Your task to perform on an android device: snooze an email in the gmail app Image 0: 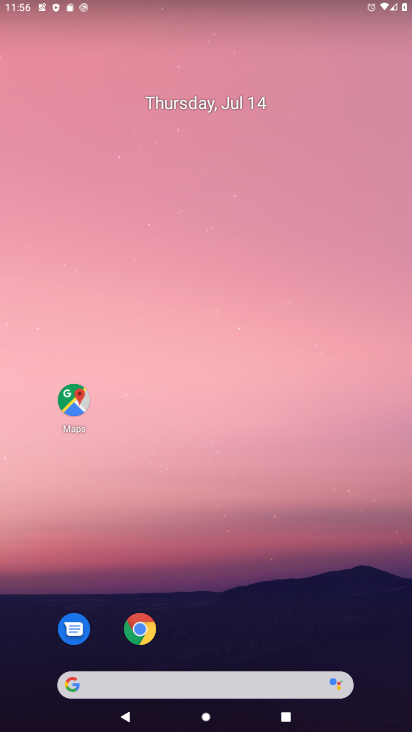
Step 0: press home button
Your task to perform on an android device: snooze an email in the gmail app Image 1: 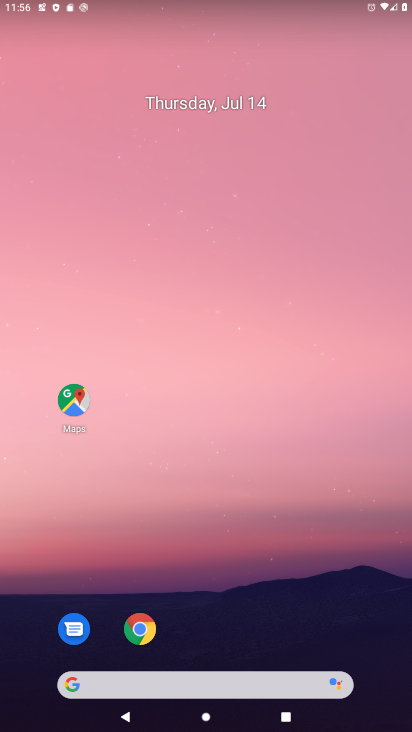
Step 1: drag from (238, 611) to (217, 53)
Your task to perform on an android device: snooze an email in the gmail app Image 2: 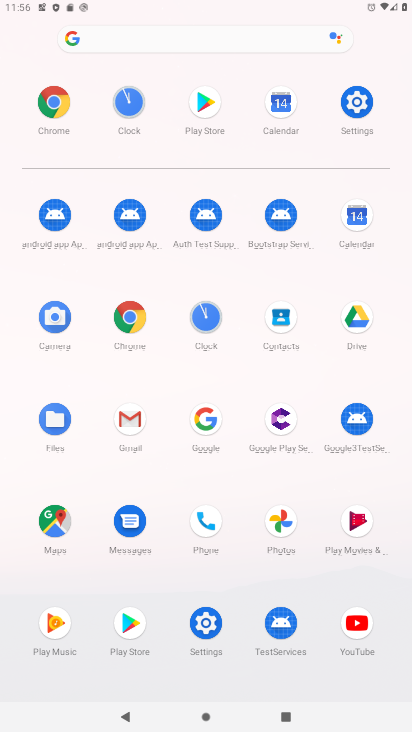
Step 2: click (132, 418)
Your task to perform on an android device: snooze an email in the gmail app Image 3: 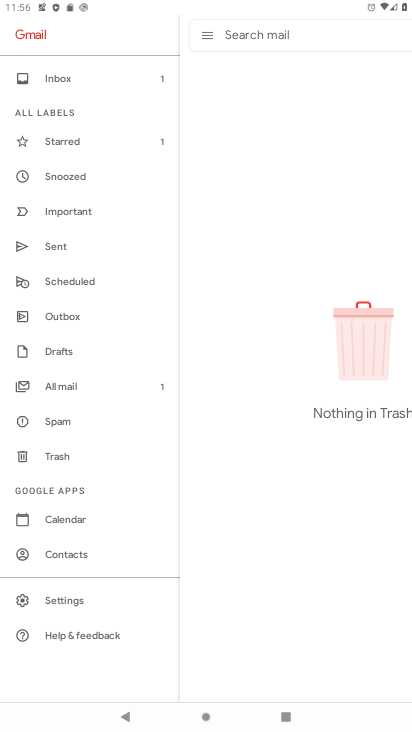
Step 3: click (49, 384)
Your task to perform on an android device: snooze an email in the gmail app Image 4: 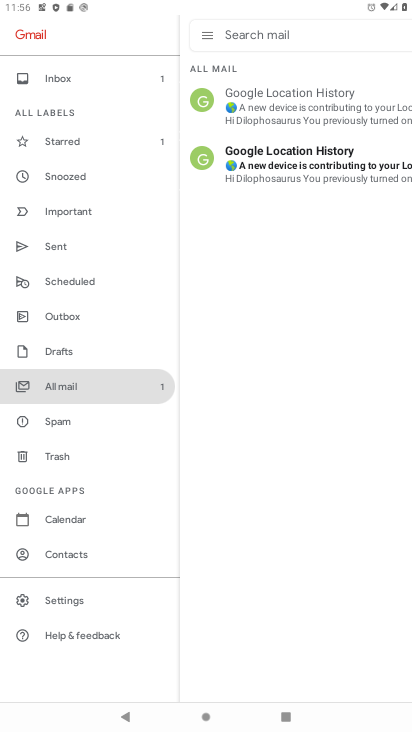
Step 4: click (295, 109)
Your task to perform on an android device: snooze an email in the gmail app Image 5: 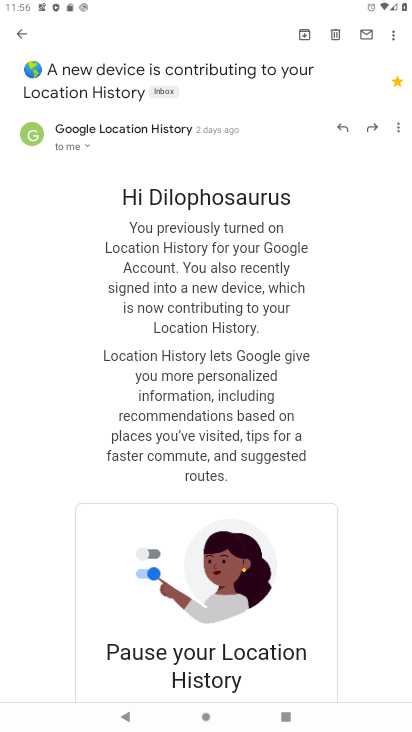
Step 5: click (395, 124)
Your task to perform on an android device: snooze an email in the gmail app Image 6: 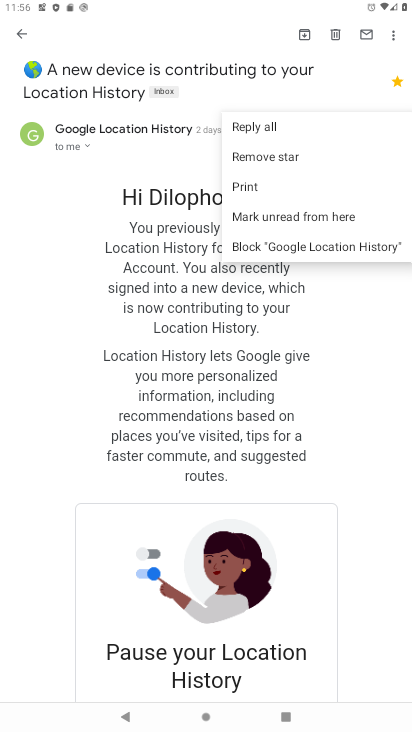
Step 6: click (352, 328)
Your task to perform on an android device: snooze an email in the gmail app Image 7: 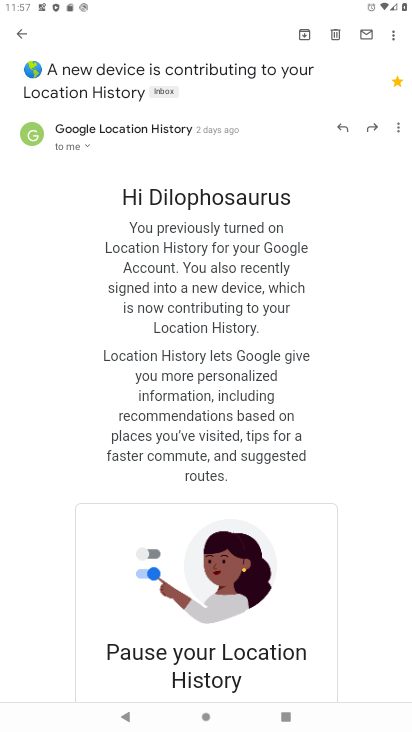
Step 7: click (395, 38)
Your task to perform on an android device: snooze an email in the gmail app Image 8: 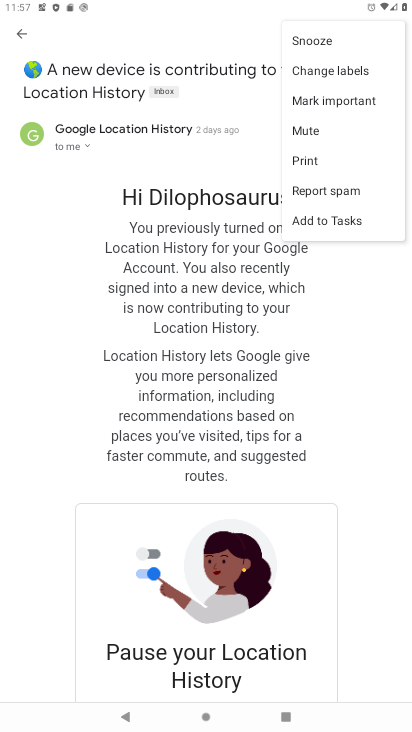
Step 8: click (308, 43)
Your task to perform on an android device: snooze an email in the gmail app Image 9: 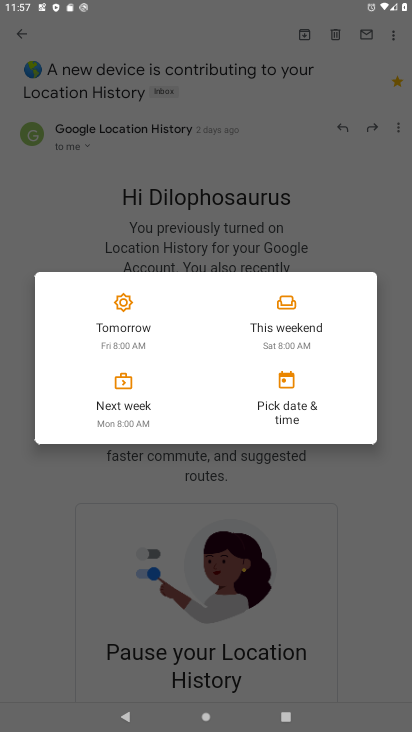
Step 9: click (123, 295)
Your task to perform on an android device: snooze an email in the gmail app Image 10: 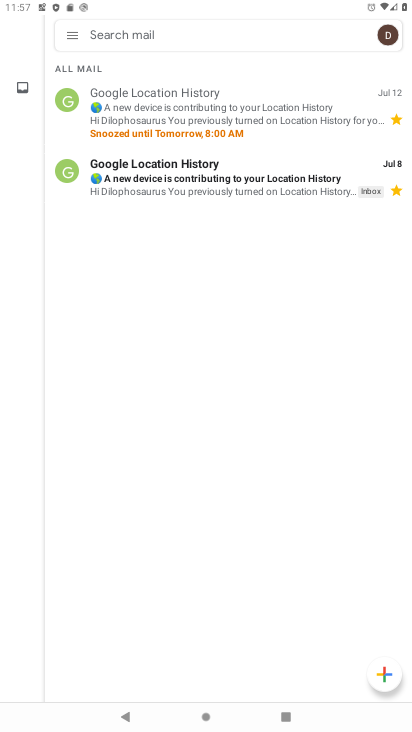
Step 10: task complete